Your task to perform on an android device: Do I have any events tomorrow? Image 0: 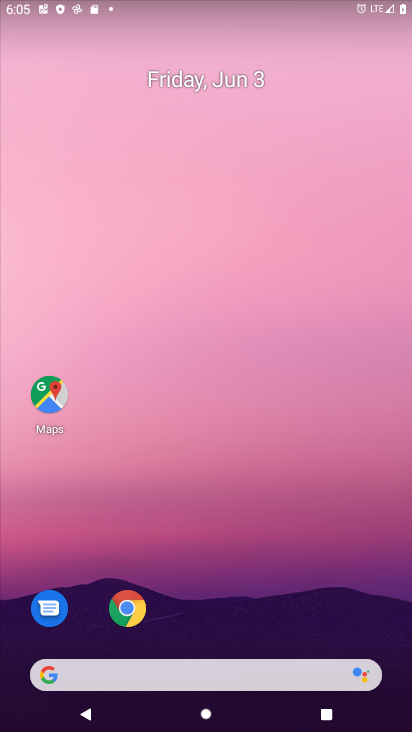
Step 0: drag from (231, 509) to (221, 185)
Your task to perform on an android device: Do I have any events tomorrow? Image 1: 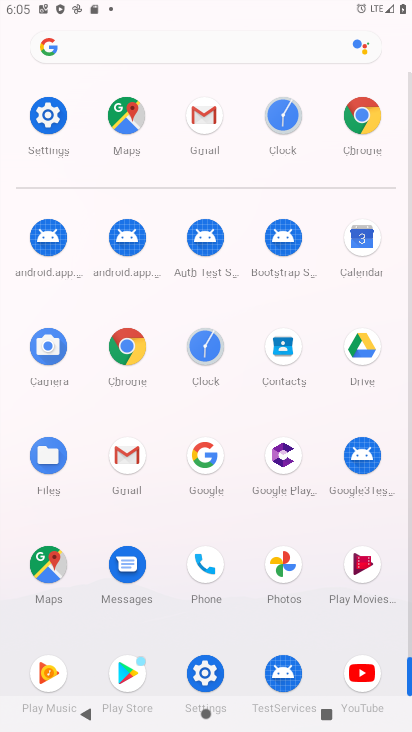
Step 1: click (360, 228)
Your task to perform on an android device: Do I have any events tomorrow? Image 2: 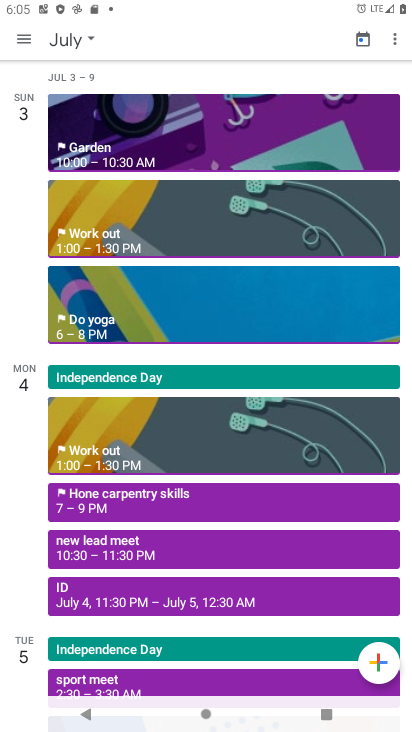
Step 2: task complete